Your task to perform on an android device: toggle airplane mode Image 0: 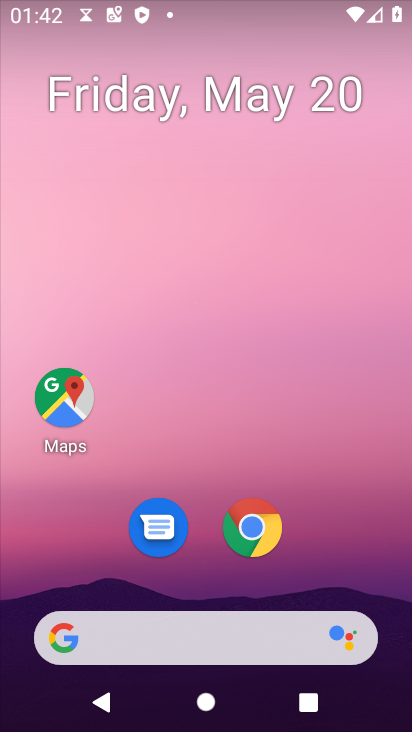
Step 0: press home button
Your task to perform on an android device: toggle airplane mode Image 1: 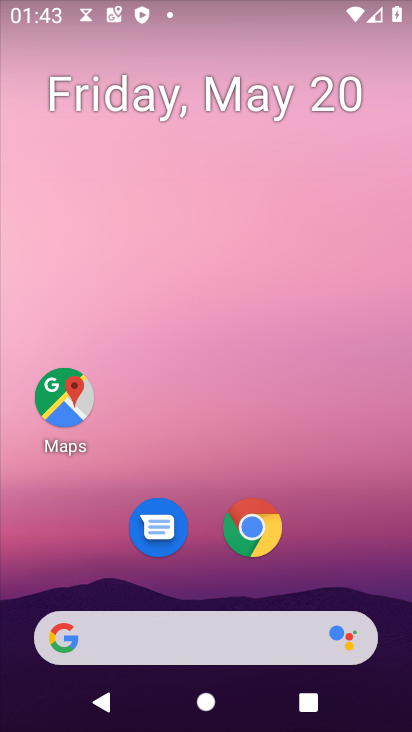
Step 1: drag from (148, 641) to (240, 144)
Your task to perform on an android device: toggle airplane mode Image 2: 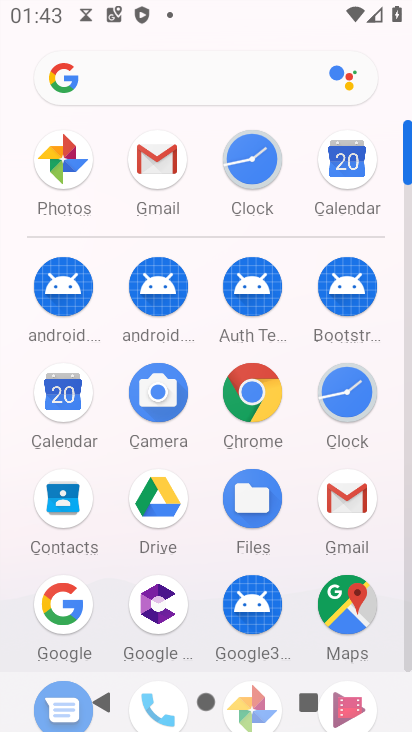
Step 2: drag from (217, 529) to (268, 161)
Your task to perform on an android device: toggle airplane mode Image 3: 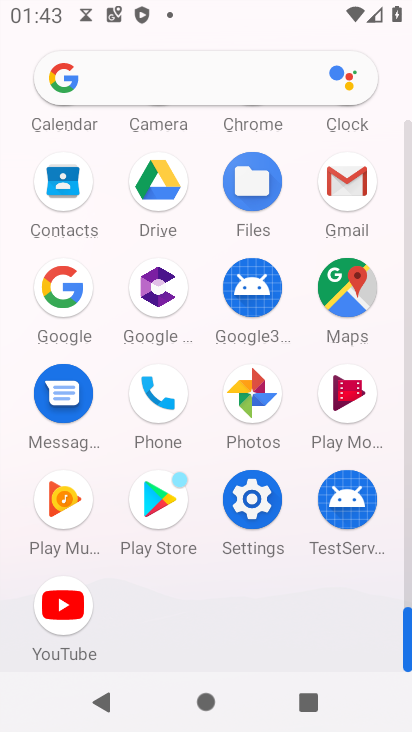
Step 3: click (263, 510)
Your task to perform on an android device: toggle airplane mode Image 4: 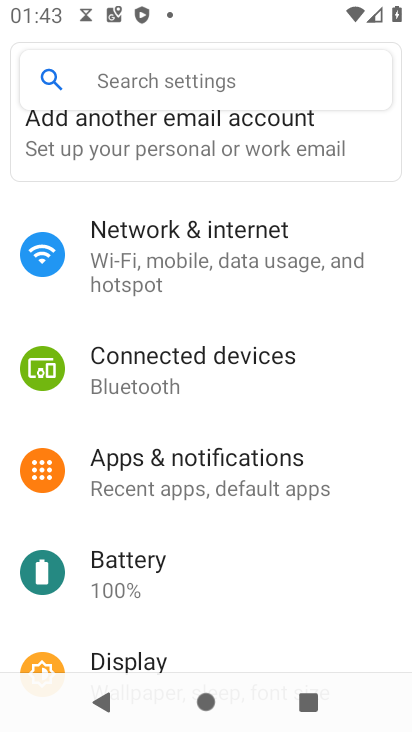
Step 4: click (220, 239)
Your task to perform on an android device: toggle airplane mode Image 5: 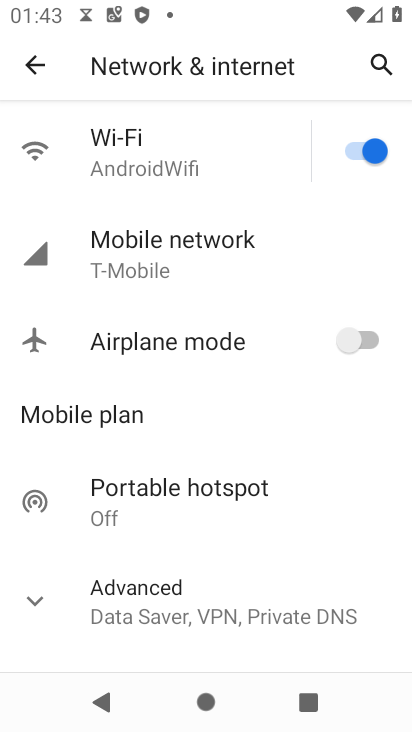
Step 5: click (365, 340)
Your task to perform on an android device: toggle airplane mode Image 6: 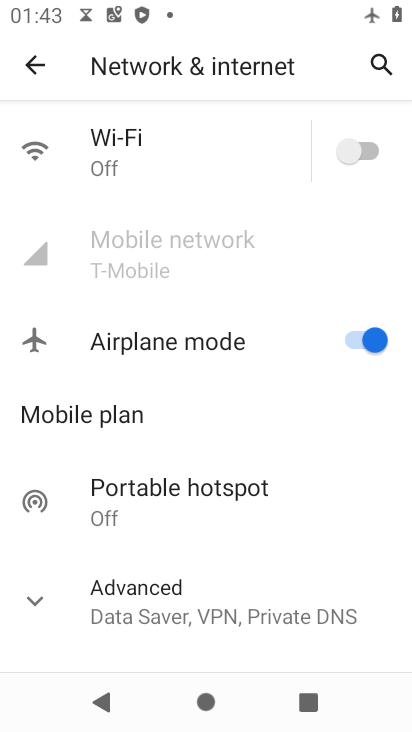
Step 6: task complete